Your task to perform on an android device: star an email in the gmail app Image 0: 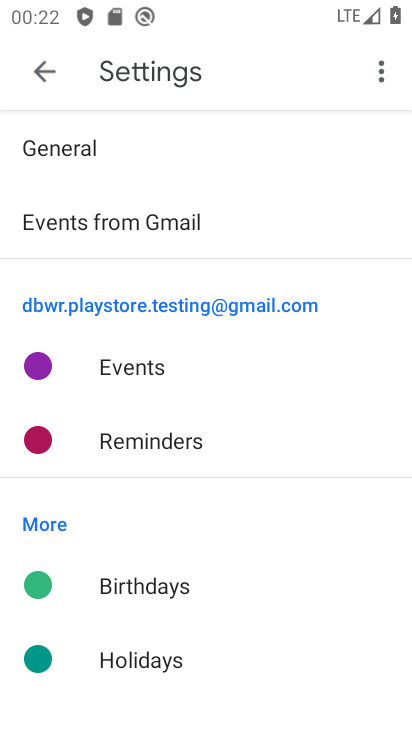
Step 0: press home button
Your task to perform on an android device: star an email in the gmail app Image 1: 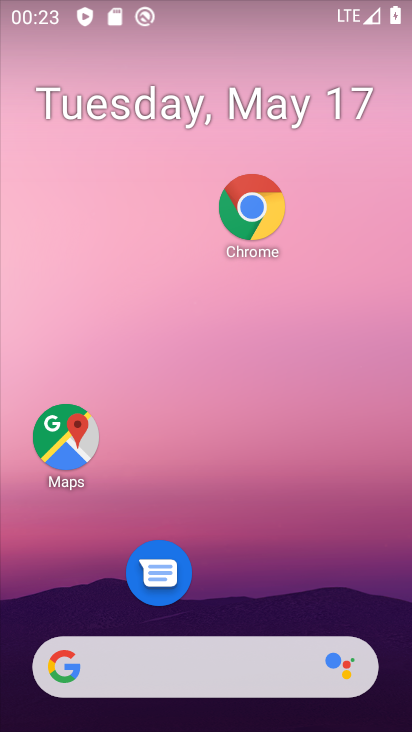
Step 1: drag from (337, 660) to (328, 83)
Your task to perform on an android device: star an email in the gmail app Image 2: 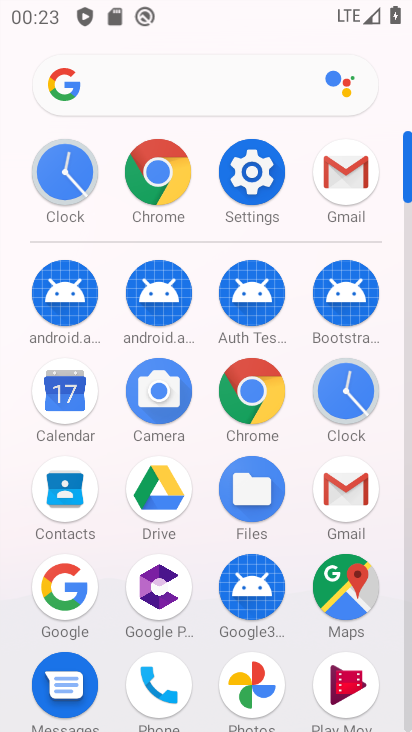
Step 2: click (342, 477)
Your task to perform on an android device: star an email in the gmail app Image 3: 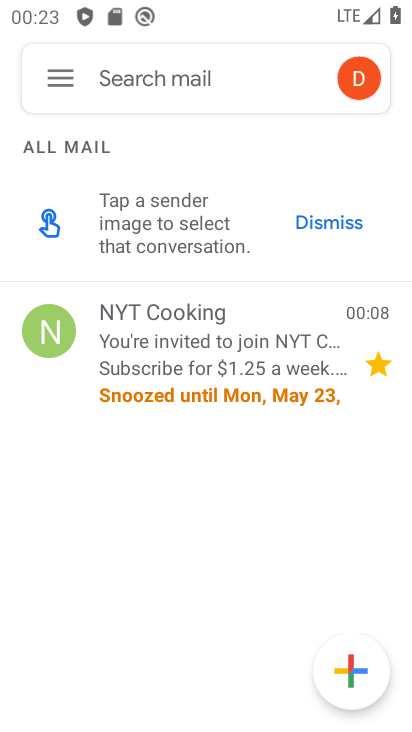
Step 3: press home button
Your task to perform on an android device: star an email in the gmail app Image 4: 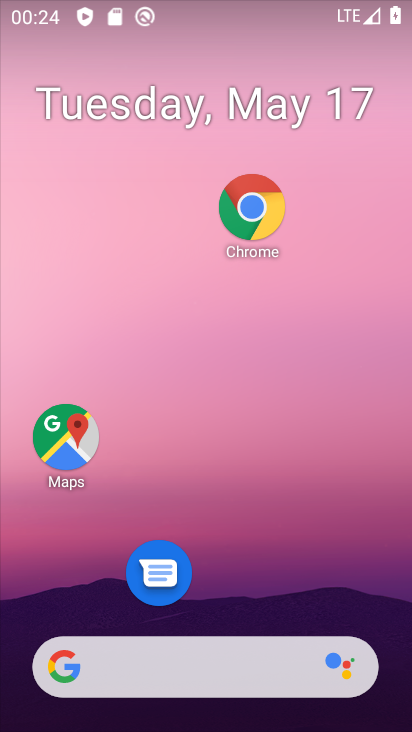
Step 4: drag from (166, 679) to (176, 7)
Your task to perform on an android device: star an email in the gmail app Image 5: 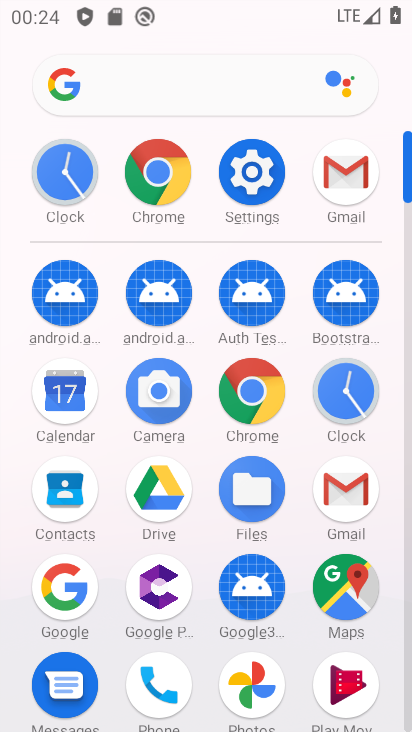
Step 5: click (362, 489)
Your task to perform on an android device: star an email in the gmail app Image 6: 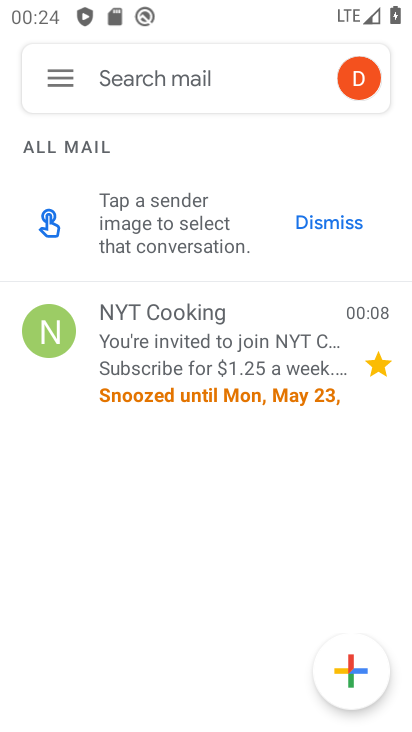
Step 6: task complete